Your task to perform on an android device: turn on bluetooth scan Image 0: 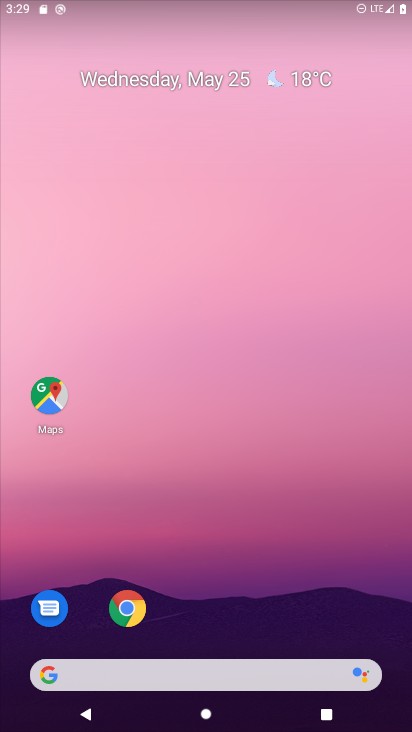
Step 0: drag from (346, 619) to (296, 58)
Your task to perform on an android device: turn on bluetooth scan Image 1: 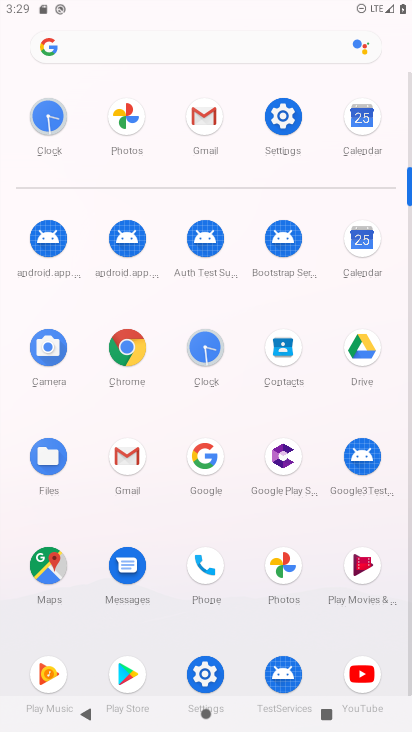
Step 1: click (200, 674)
Your task to perform on an android device: turn on bluetooth scan Image 2: 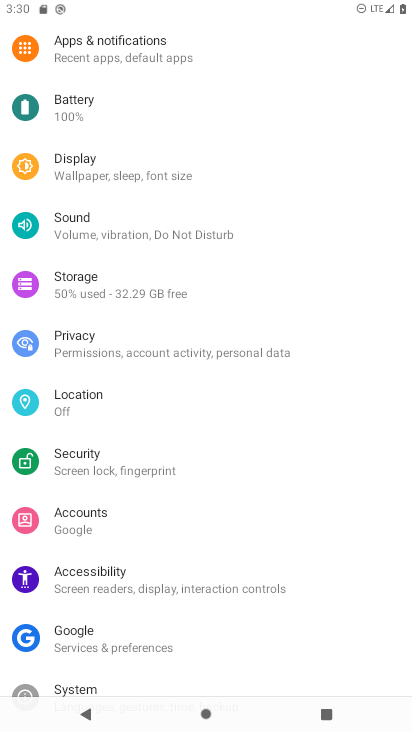
Step 2: click (98, 402)
Your task to perform on an android device: turn on bluetooth scan Image 3: 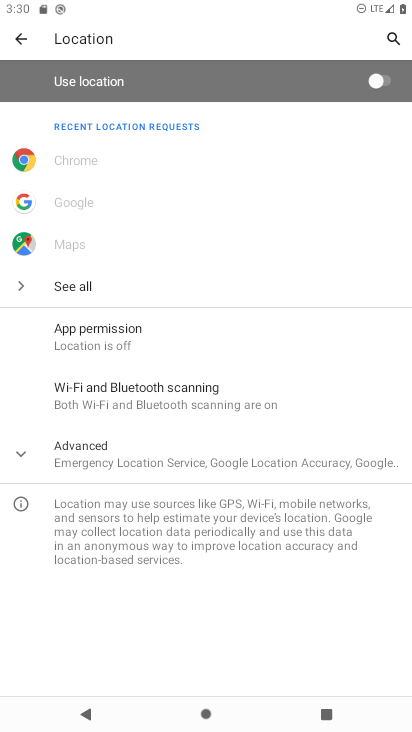
Step 3: click (136, 391)
Your task to perform on an android device: turn on bluetooth scan Image 4: 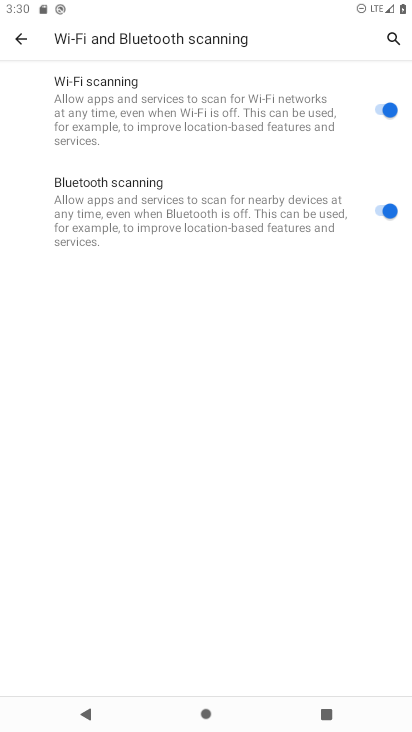
Step 4: task complete